Your task to perform on an android device: Go to Maps Image 0: 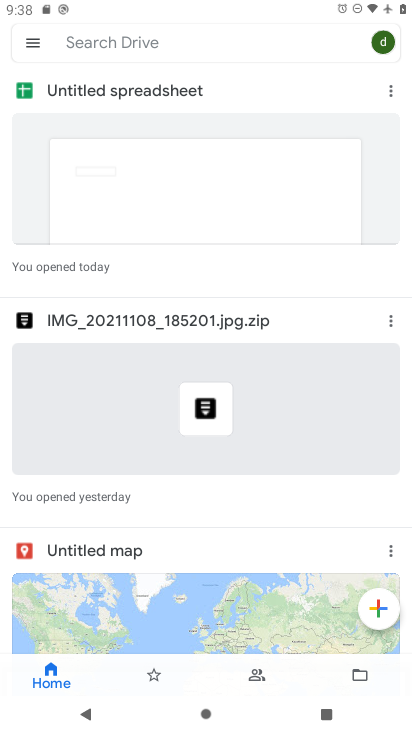
Step 0: press home button
Your task to perform on an android device: Go to Maps Image 1: 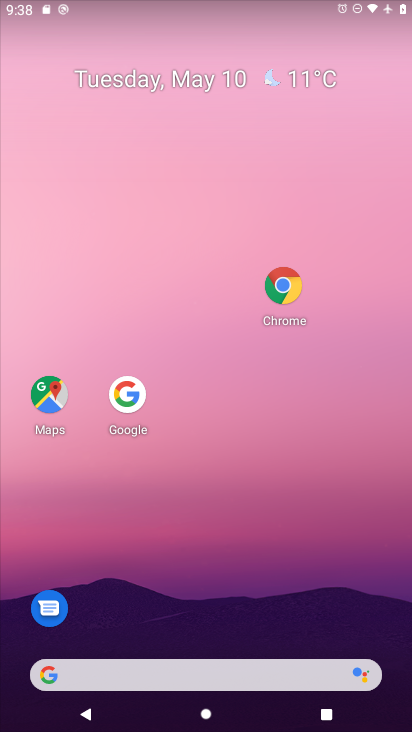
Step 1: click (49, 393)
Your task to perform on an android device: Go to Maps Image 2: 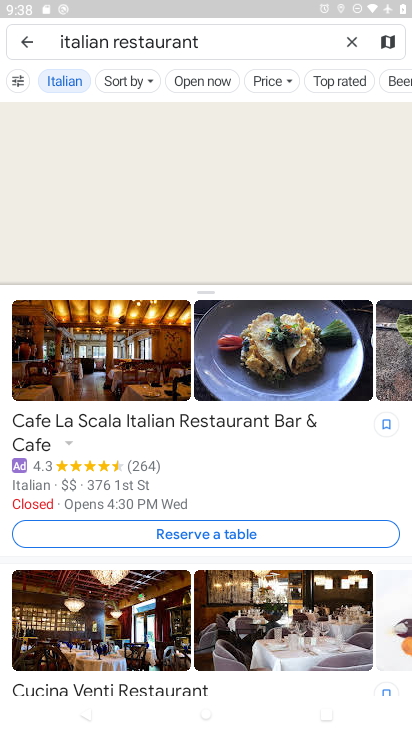
Step 2: click (23, 39)
Your task to perform on an android device: Go to Maps Image 3: 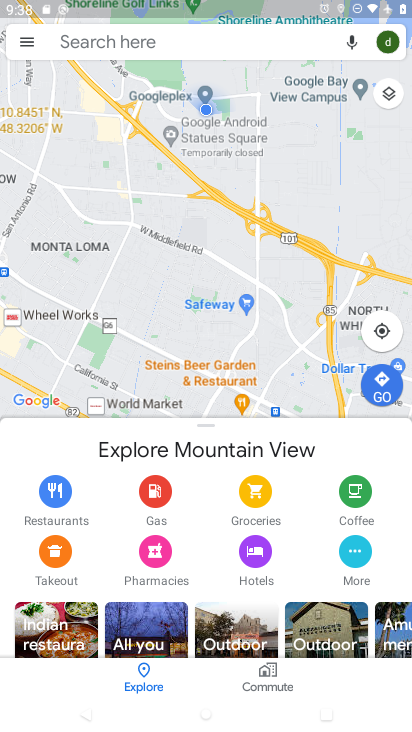
Step 3: task complete